Your task to perform on an android device: check android version Image 0: 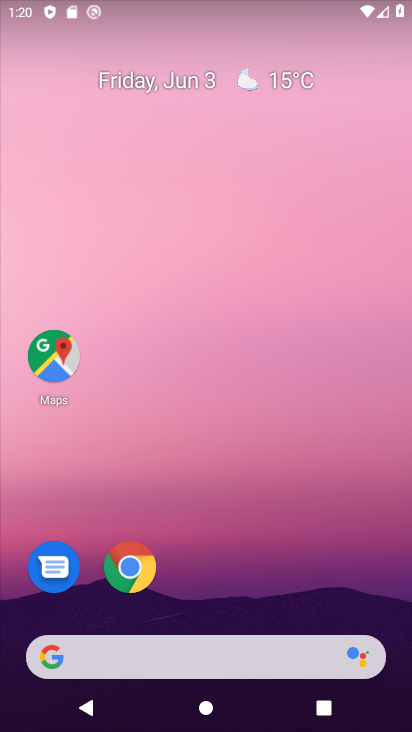
Step 0: click (225, 169)
Your task to perform on an android device: check android version Image 1: 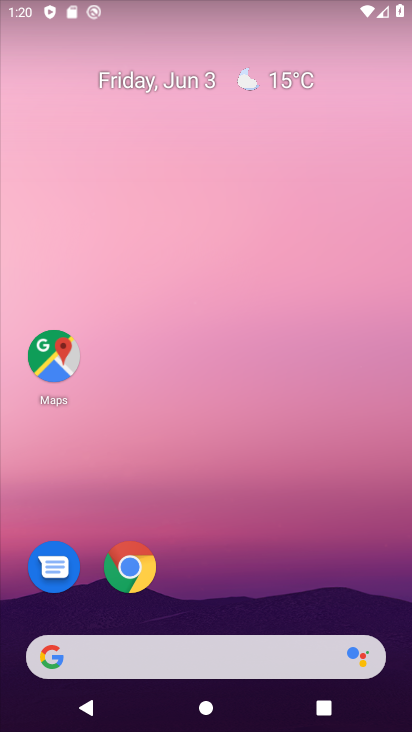
Step 1: click (310, 2)
Your task to perform on an android device: check android version Image 2: 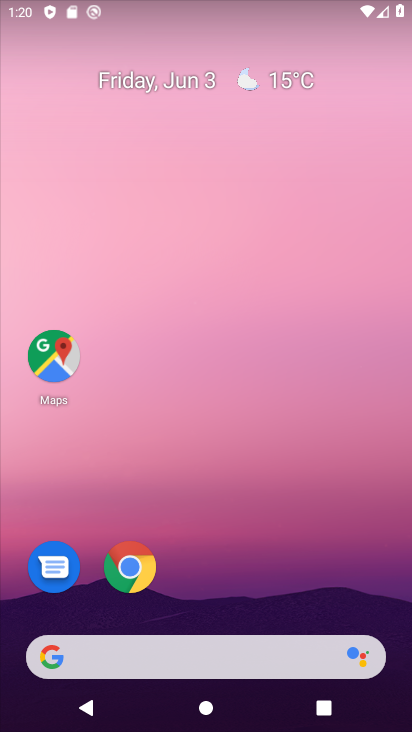
Step 2: click (293, 151)
Your task to perform on an android device: check android version Image 3: 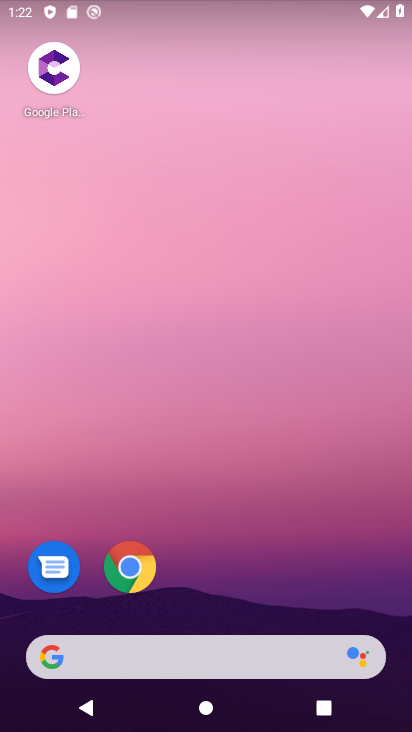
Step 3: drag from (197, 300) to (220, 22)
Your task to perform on an android device: check android version Image 4: 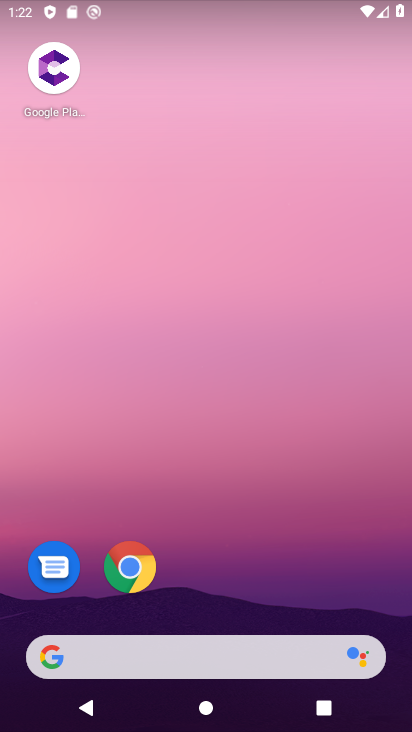
Step 4: drag from (186, 637) to (260, 91)
Your task to perform on an android device: check android version Image 5: 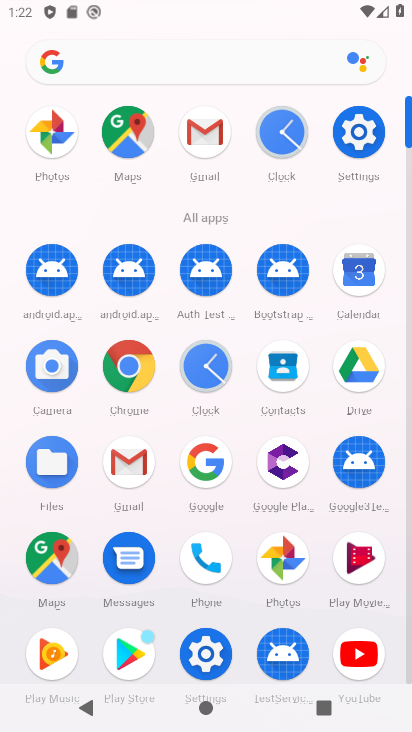
Step 5: click (207, 650)
Your task to perform on an android device: check android version Image 6: 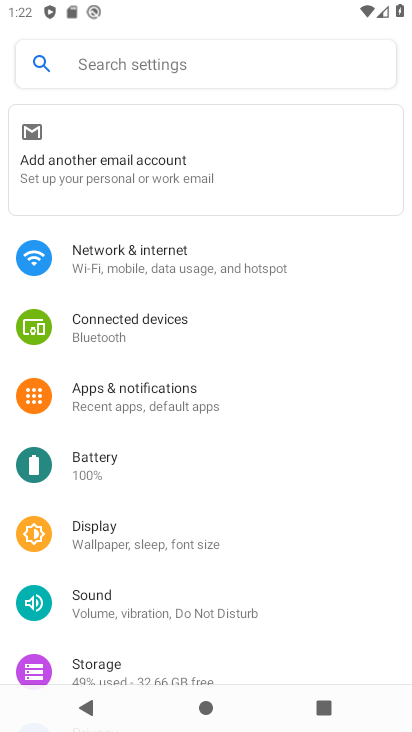
Step 6: drag from (193, 636) to (183, 81)
Your task to perform on an android device: check android version Image 7: 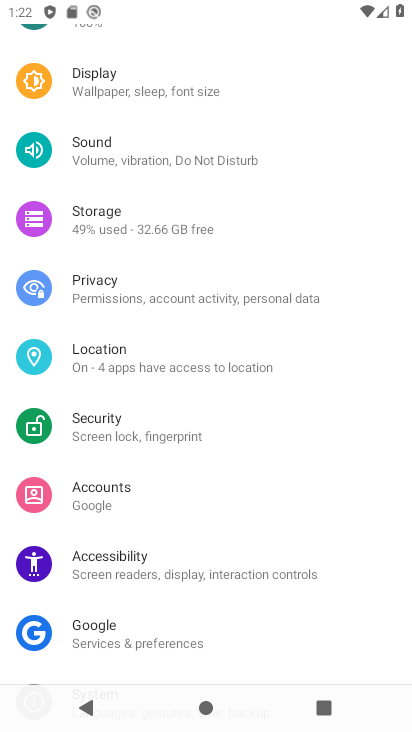
Step 7: drag from (149, 617) to (154, 183)
Your task to perform on an android device: check android version Image 8: 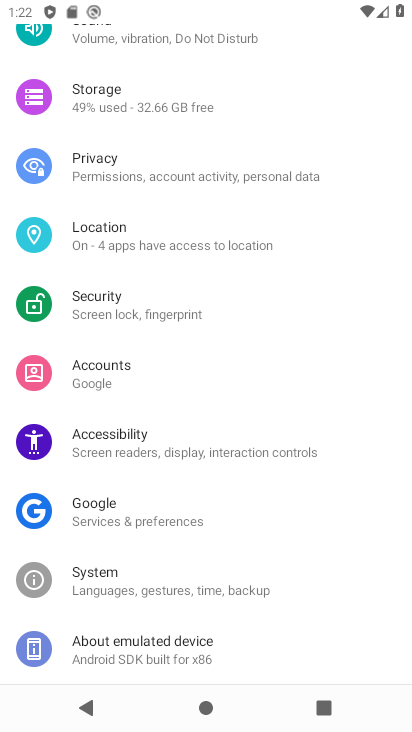
Step 8: click (156, 666)
Your task to perform on an android device: check android version Image 9: 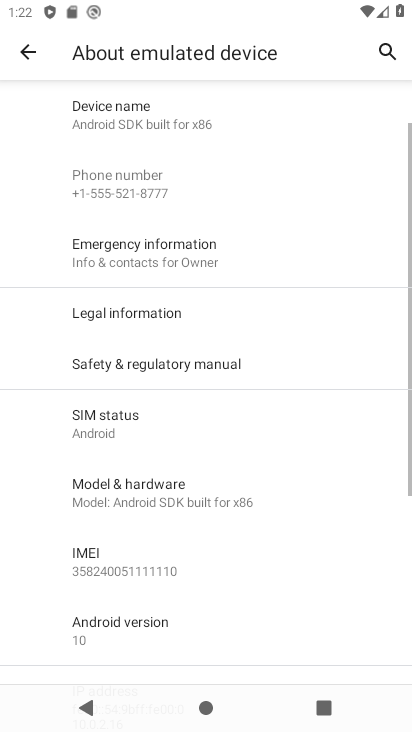
Step 9: task complete